Your task to perform on an android device: add a label to a message in the gmail app Image 0: 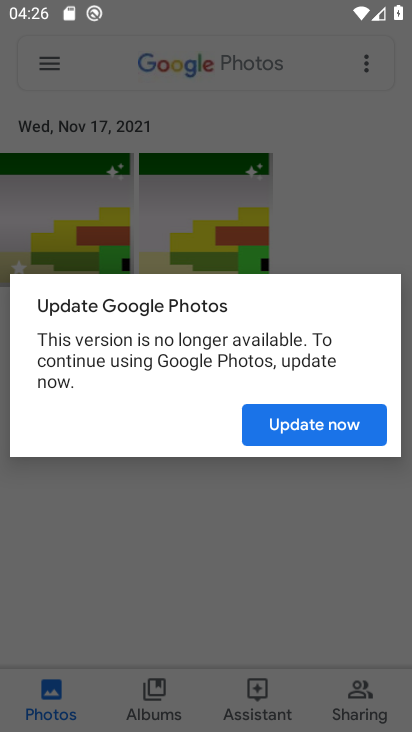
Step 0: press home button
Your task to perform on an android device: add a label to a message in the gmail app Image 1: 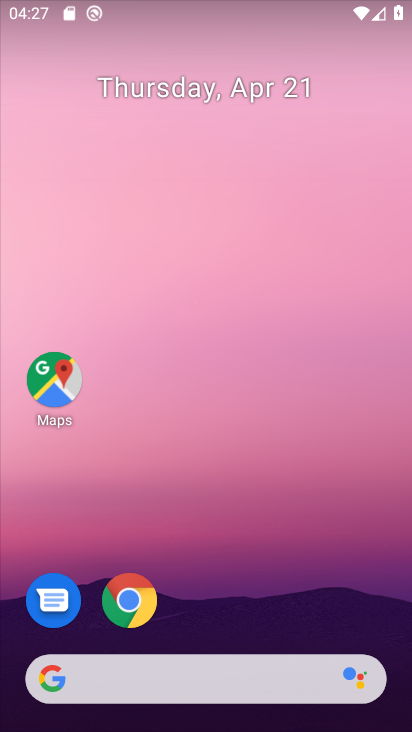
Step 1: drag from (366, 594) to (357, 35)
Your task to perform on an android device: add a label to a message in the gmail app Image 2: 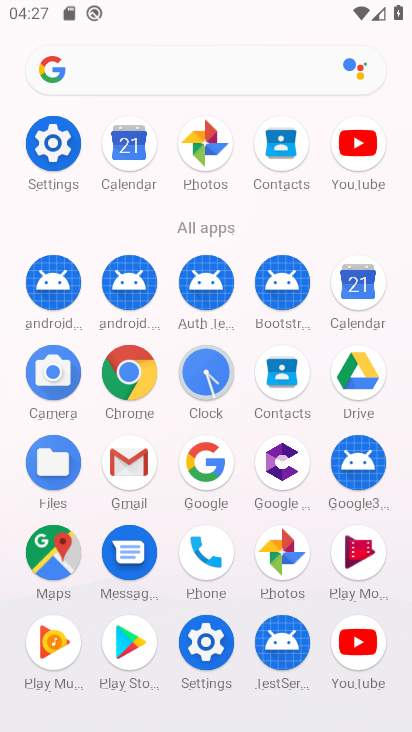
Step 2: click (135, 472)
Your task to perform on an android device: add a label to a message in the gmail app Image 3: 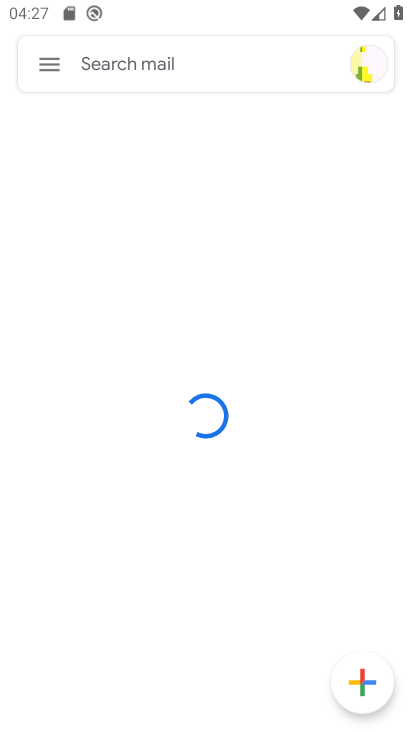
Step 3: click (56, 70)
Your task to perform on an android device: add a label to a message in the gmail app Image 4: 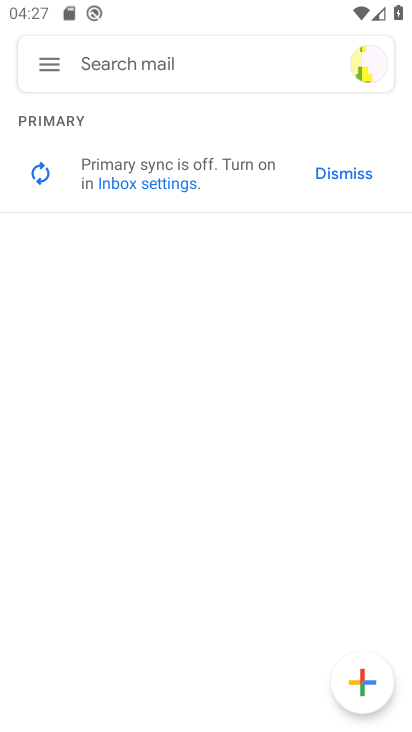
Step 4: click (45, 68)
Your task to perform on an android device: add a label to a message in the gmail app Image 5: 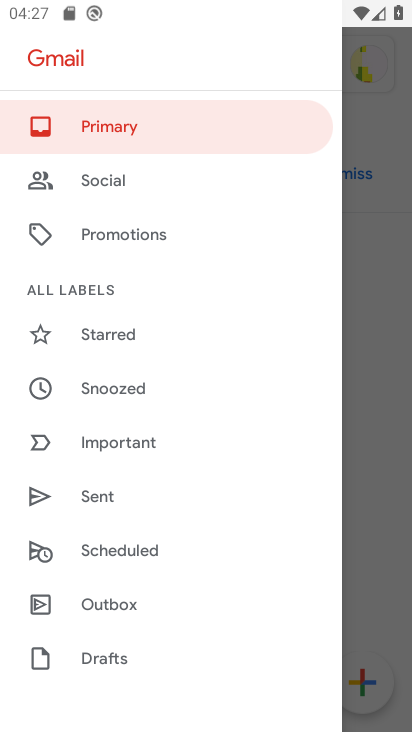
Step 5: drag from (183, 602) to (158, 344)
Your task to perform on an android device: add a label to a message in the gmail app Image 6: 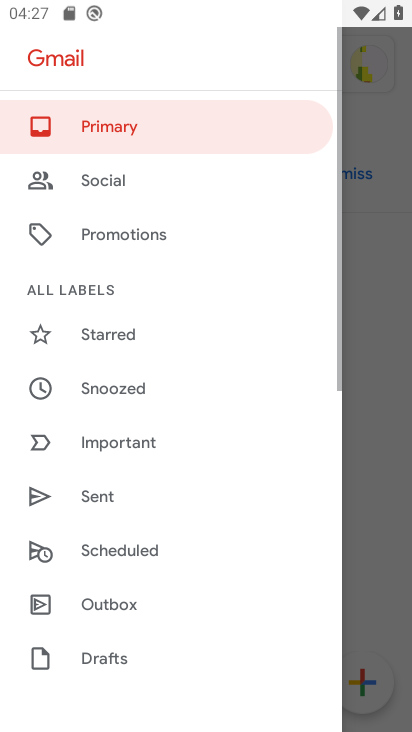
Step 6: click (262, 267)
Your task to perform on an android device: add a label to a message in the gmail app Image 7: 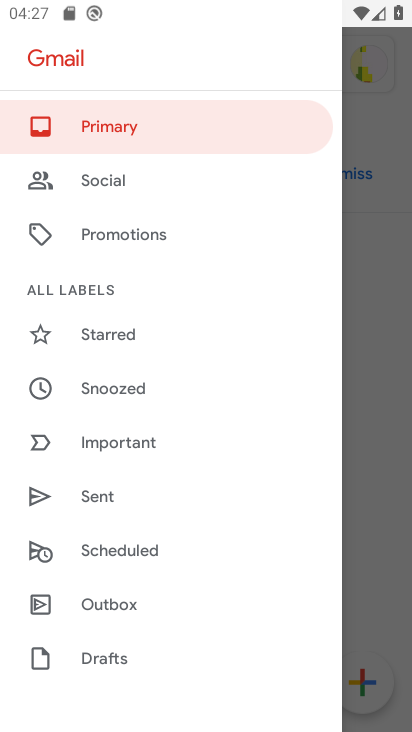
Step 7: drag from (247, 548) to (243, 75)
Your task to perform on an android device: add a label to a message in the gmail app Image 8: 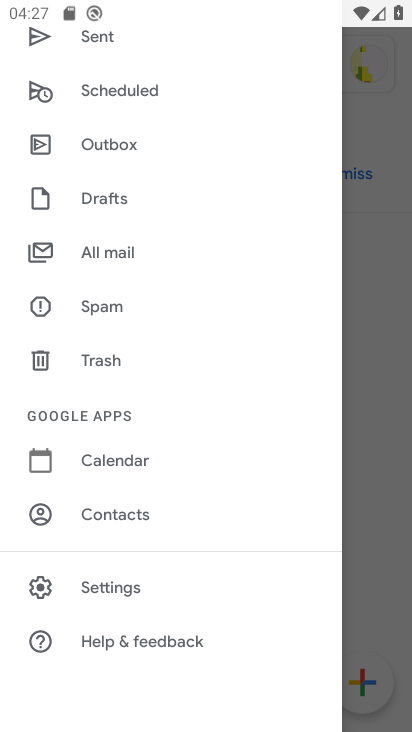
Step 8: click (91, 245)
Your task to perform on an android device: add a label to a message in the gmail app Image 9: 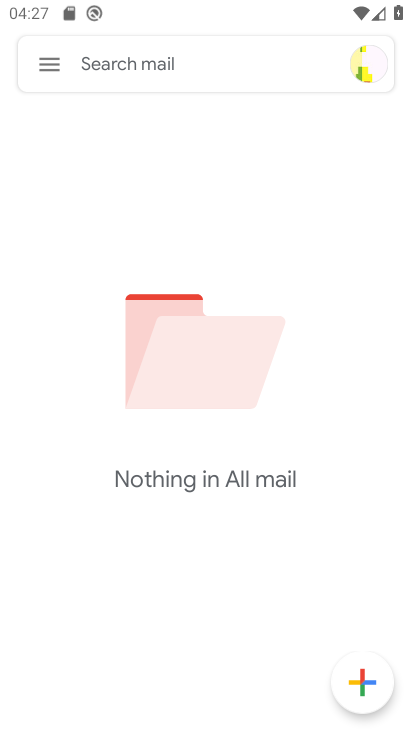
Step 9: task complete